Your task to perform on an android device: open a new tab in the chrome app Image 0: 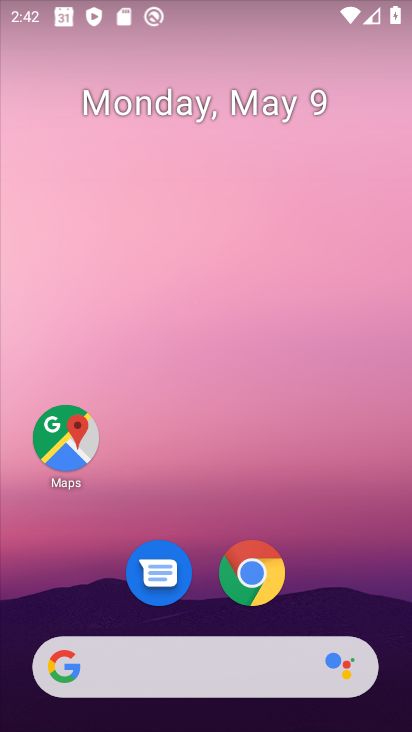
Step 0: click (244, 569)
Your task to perform on an android device: open a new tab in the chrome app Image 1: 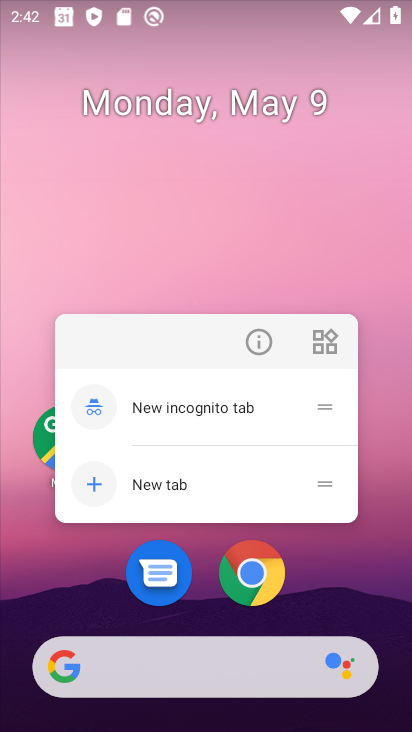
Step 1: click (244, 568)
Your task to perform on an android device: open a new tab in the chrome app Image 2: 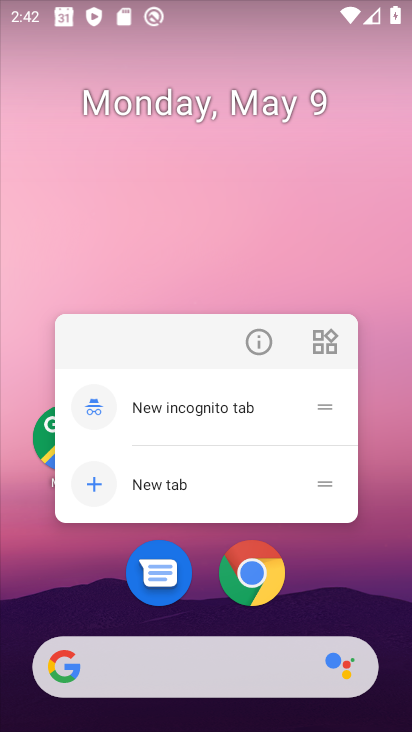
Step 2: click (255, 578)
Your task to perform on an android device: open a new tab in the chrome app Image 3: 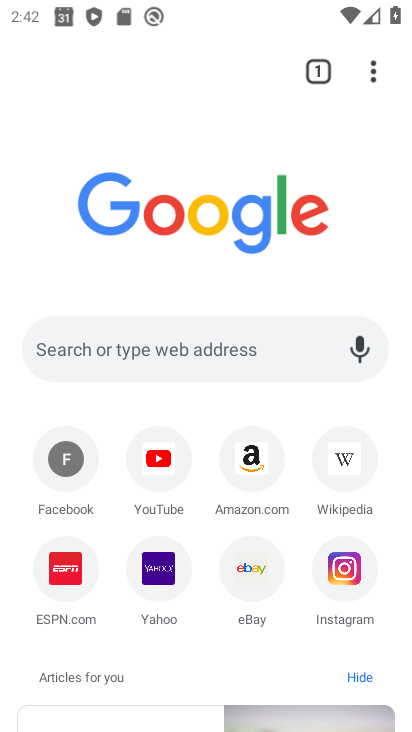
Step 3: click (374, 73)
Your task to perform on an android device: open a new tab in the chrome app Image 4: 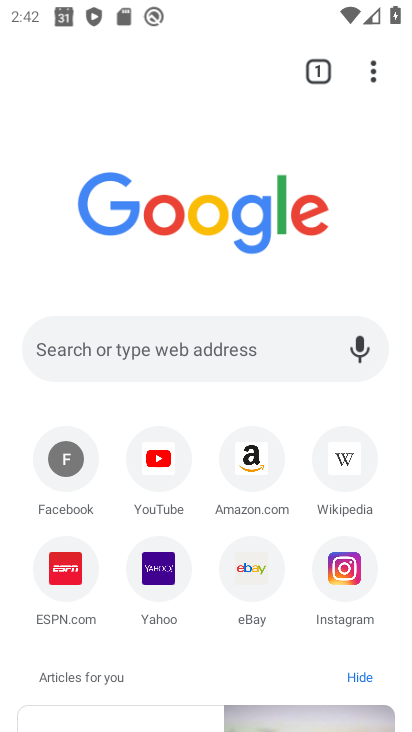
Step 4: click (374, 73)
Your task to perform on an android device: open a new tab in the chrome app Image 5: 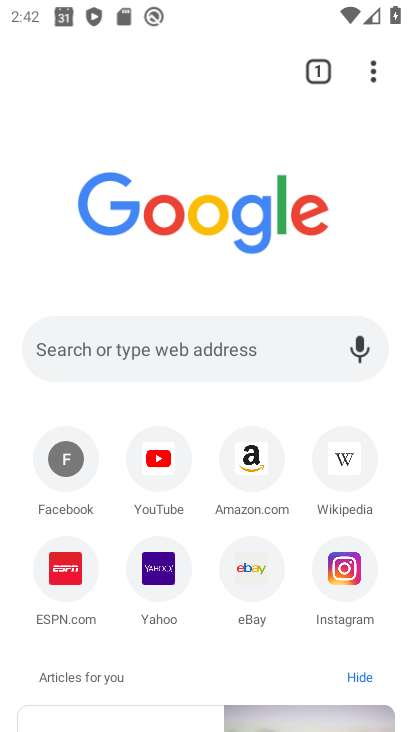
Step 5: click (374, 73)
Your task to perform on an android device: open a new tab in the chrome app Image 6: 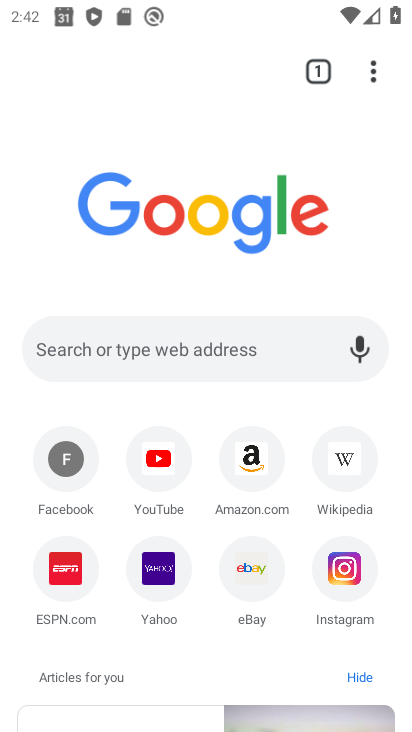
Step 6: click (387, 61)
Your task to perform on an android device: open a new tab in the chrome app Image 7: 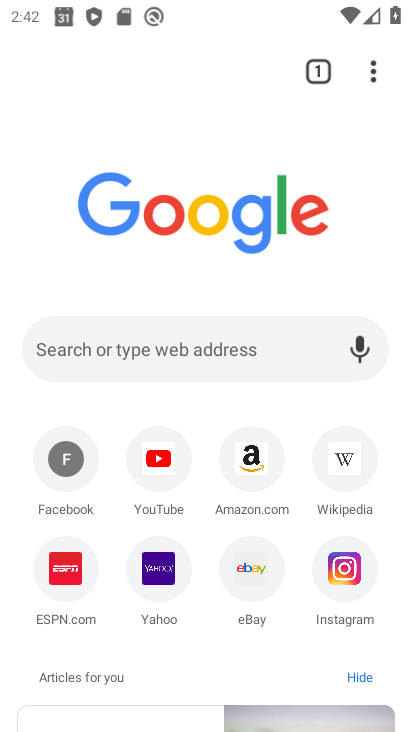
Step 7: click (376, 71)
Your task to perform on an android device: open a new tab in the chrome app Image 8: 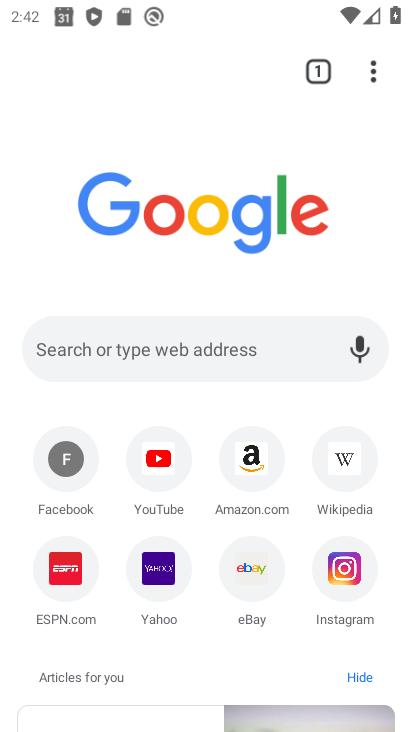
Step 8: click (376, 71)
Your task to perform on an android device: open a new tab in the chrome app Image 9: 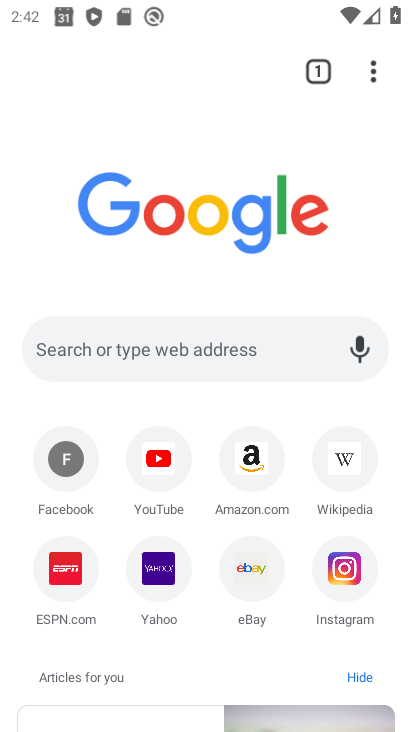
Step 9: click (376, 71)
Your task to perform on an android device: open a new tab in the chrome app Image 10: 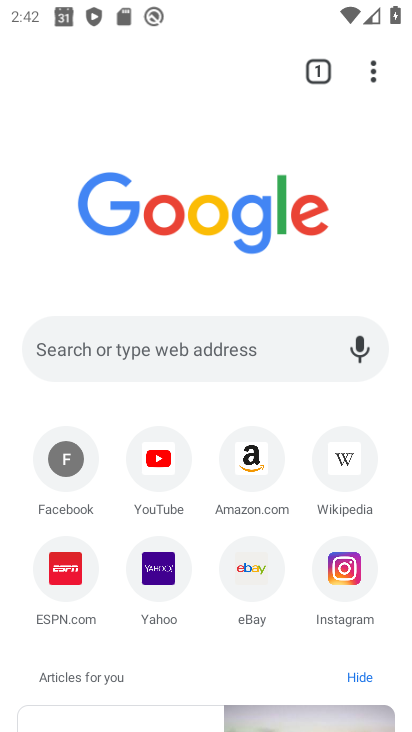
Step 10: click (376, 71)
Your task to perform on an android device: open a new tab in the chrome app Image 11: 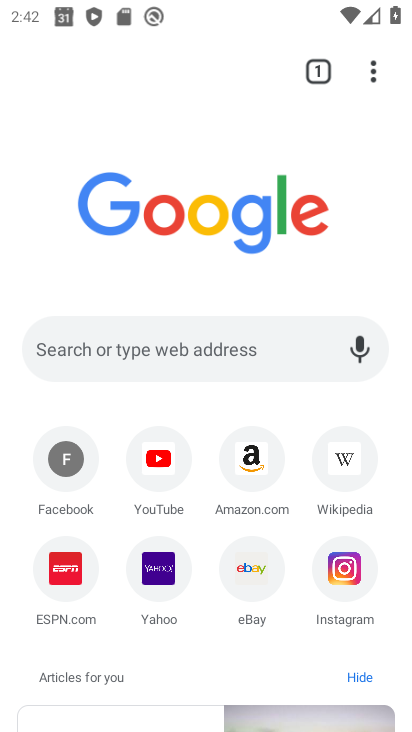
Step 11: click (376, 71)
Your task to perform on an android device: open a new tab in the chrome app Image 12: 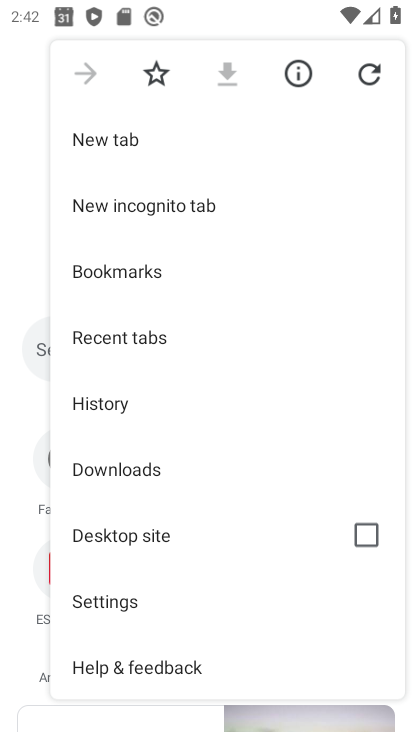
Step 12: drag from (197, 650) to (229, 332)
Your task to perform on an android device: open a new tab in the chrome app Image 13: 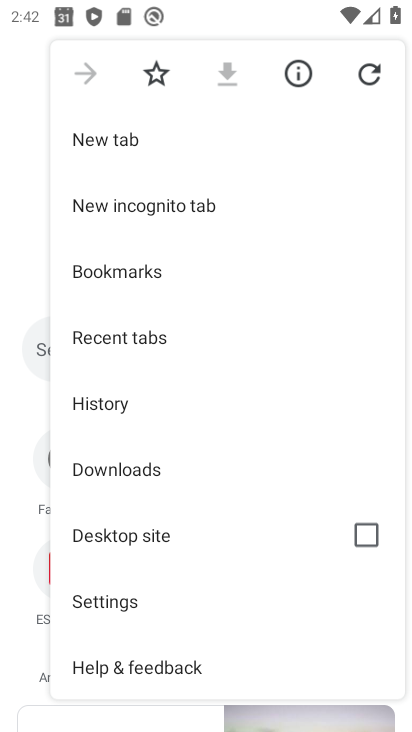
Step 13: click (131, 122)
Your task to perform on an android device: open a new tab in the chrome app Image 14: 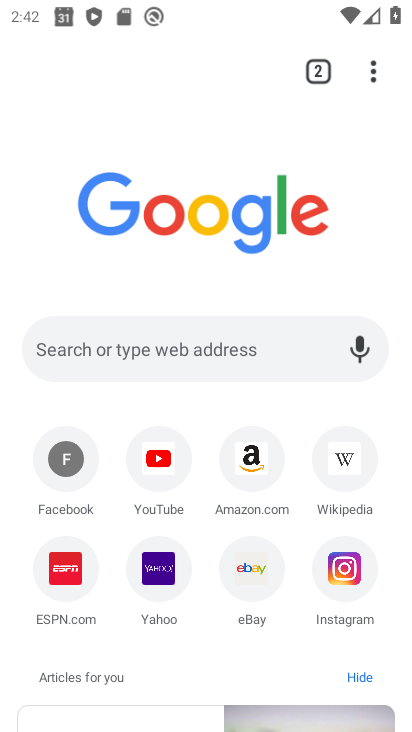
Step 14: task complete